Your task to perform on an android device: Go to privacy settings Image 0: 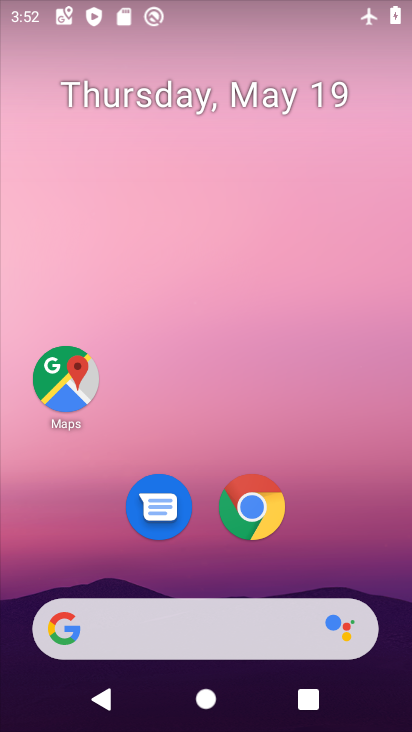
Step 0: click (252, 508)
Your task to perform on an android device: Go to privacy settings Image 1: 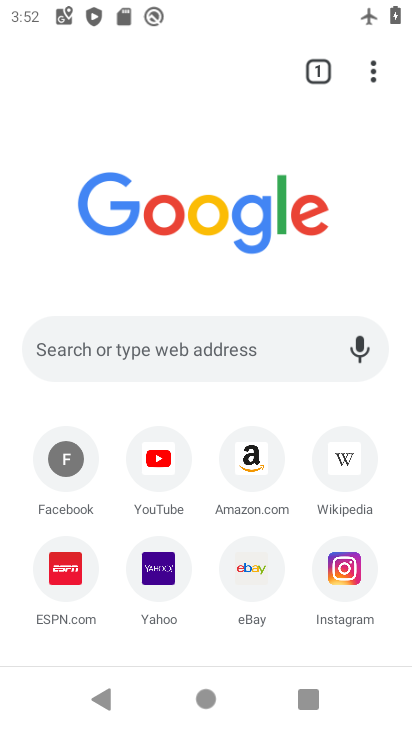
Step 1: click (370, 69)
Your task to perform on an android device: Go to privacy settings Image 2: 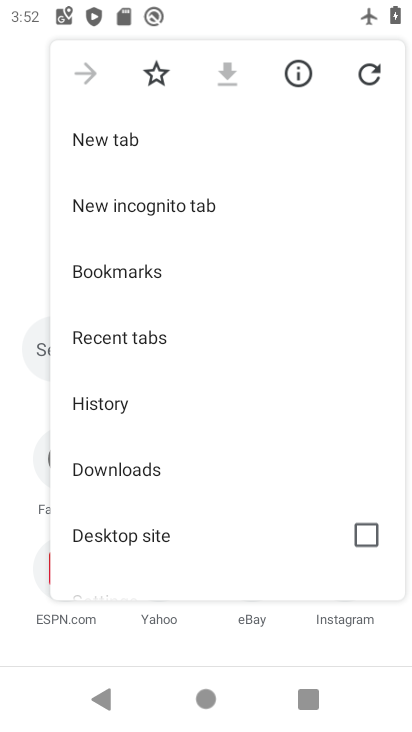
Step 2: drag from (235, 541) to (246, 320)
Your task to perform on an android device: Go to privacy settings Image 3: 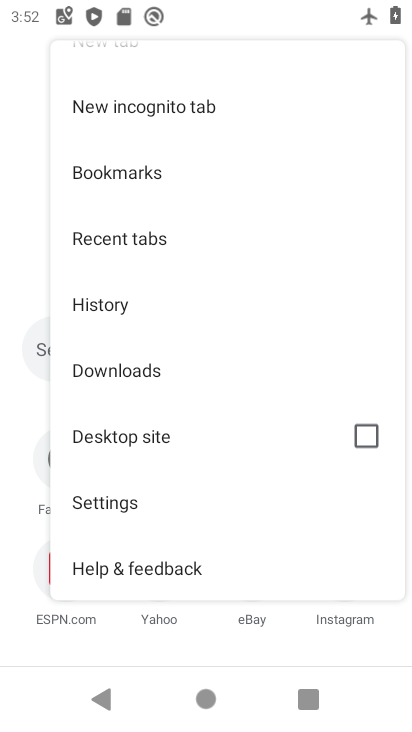
Step 3: click (102, 498)
Your task to perform on an android device: Go to privacy settings Image 4: 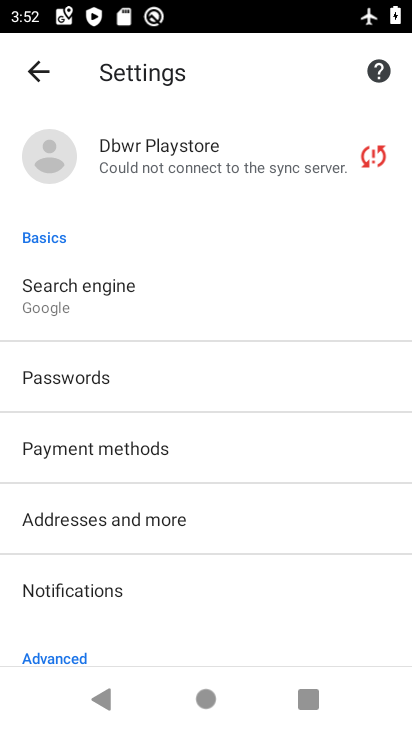
Step 4: drag from (235, 599) to (213, 423)
Your task to perform on an android device: Go to privacy settings Image 5: 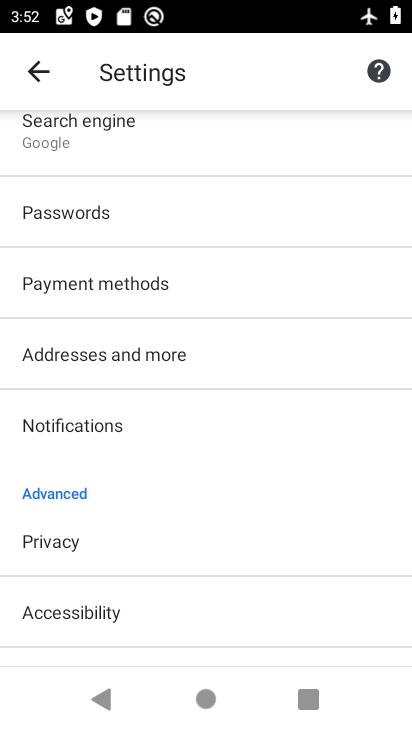
Step 5: click (37, 535)
Your task to perform on an android device: Go to privacy settings Image 6: 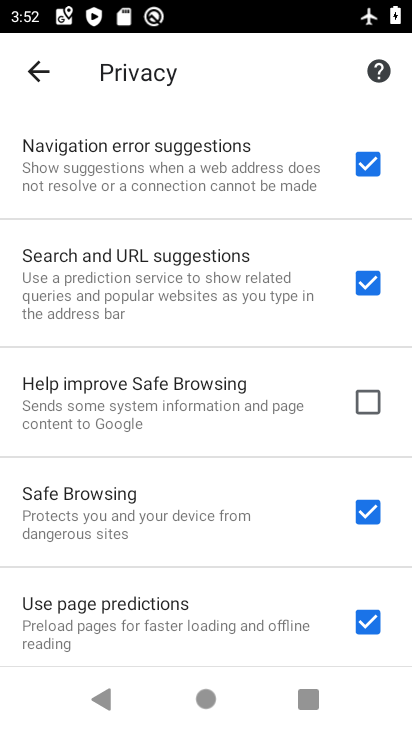
Step 6: task complete